Your task to perform on an android device: Open sound settings Image 0: 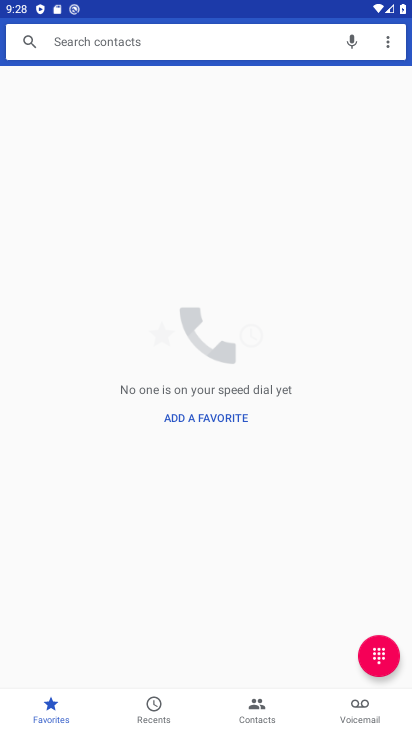
Step 0: press home button
Your task to perform on an android device: Open sound settings Image 1: 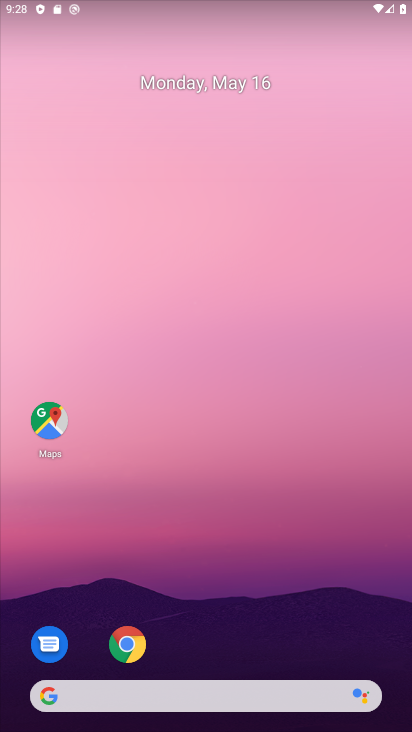
Step 1: drag from (180, 682) to (254, 240)
Your task to perform on an android device: Open sound settings Image 2: 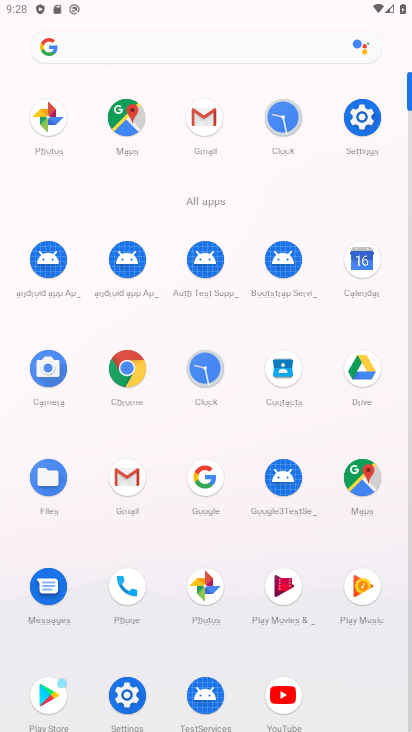
Step 2: click (357, 104)
Your task to perform on an android device: Open sound settings Image 3: 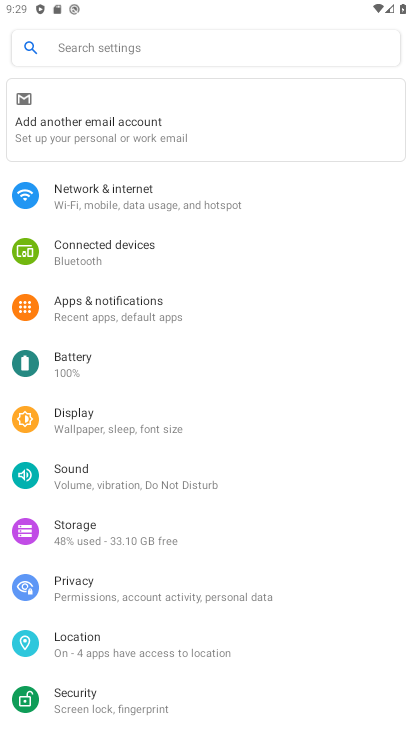
Step 3: click (102, 469)
Your task to perform on an android device: Open sound settings Image 4: 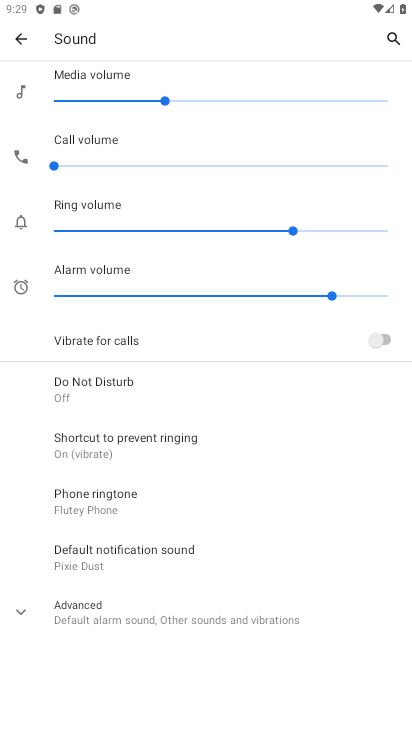
Step 4: task complete